Your task to perform on an android device: see tabs open on other devices in the chrome app Image 0: 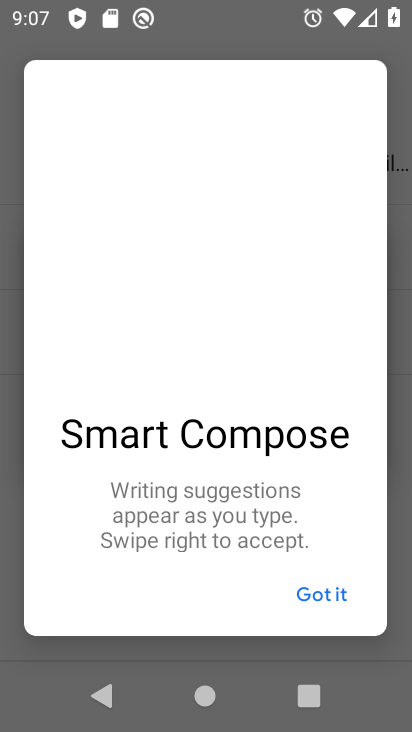
Step 0: press back button
Your task to perform on an android device: see tabs open on other devices in the chrome app Image 1: 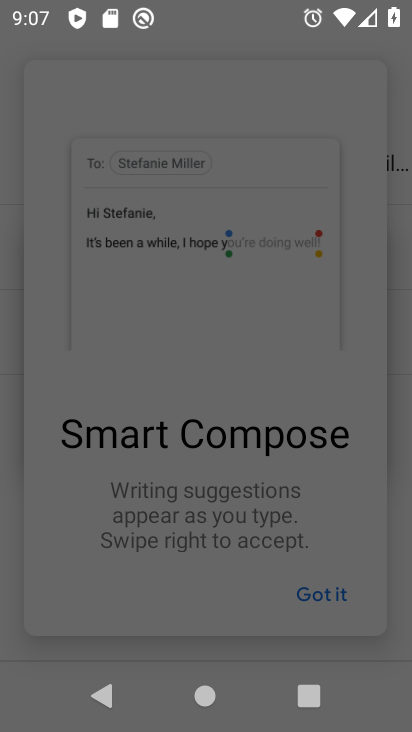
Step 1: press home button
Your task to perform on an android device: see tabs open on other devices in the chrome app Image 2: 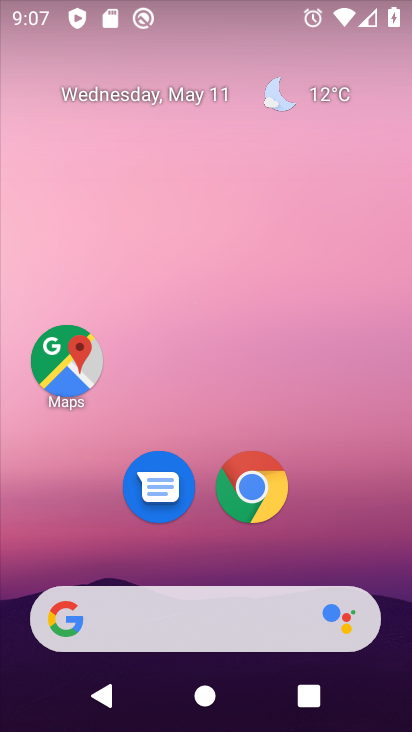
Step 2: click (250, 497)
Your task to perform on an android device: see tabs open on other devices in the chrome app Image 3: 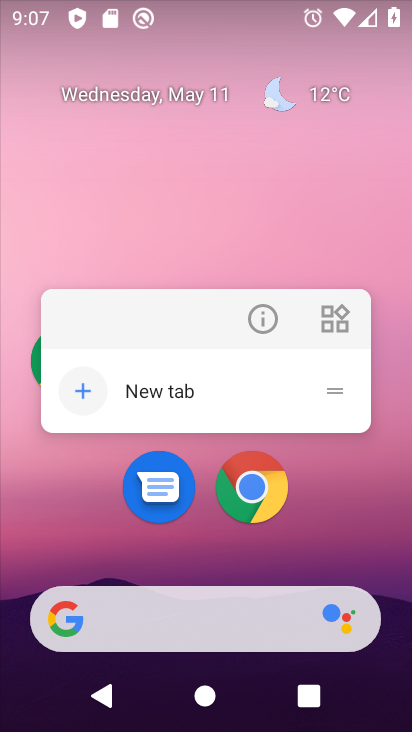
Step 3: click (253, 488)
Your task to perform on an android device: see tabs open on other devices in the chrome app Image 4: 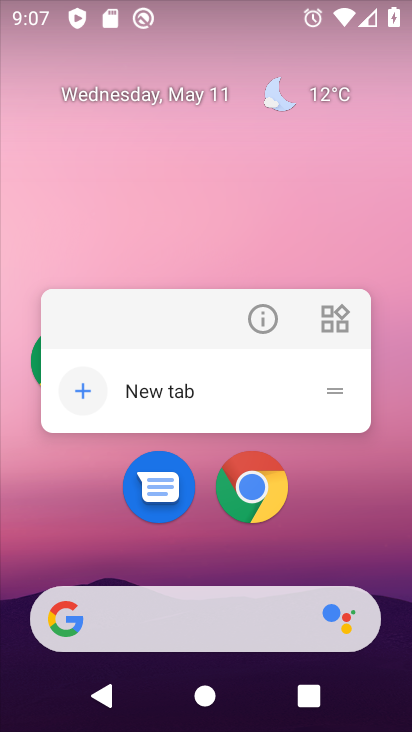
Step 4: click (251, 479)
Your task to perform on an android device: see tabs open on other devices in the chrome app Image 5: 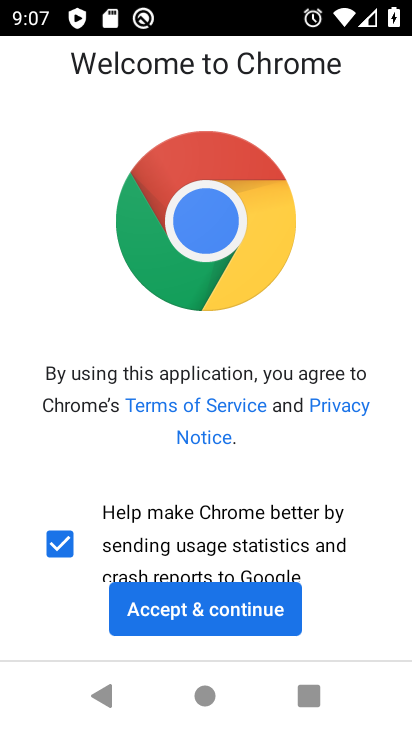
Step 5: click (262, 619)
Your task to perform on an android device: see tabs open on other devices in the chrome app Image 6: 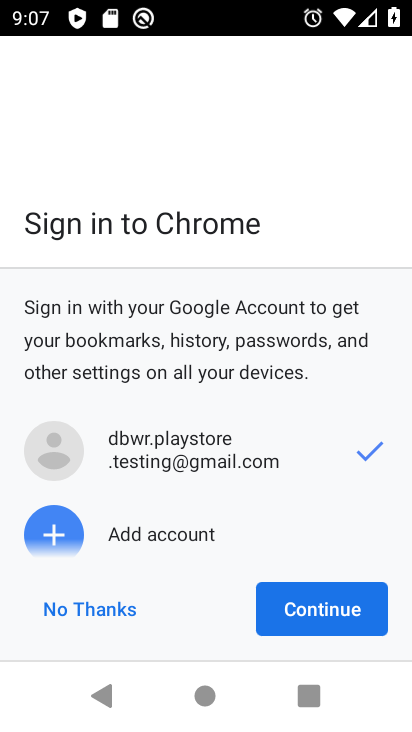
Step 6: click (312, 607)
Your task to perform on an android device: see tabs open on other devices in the chrome app Image 7: 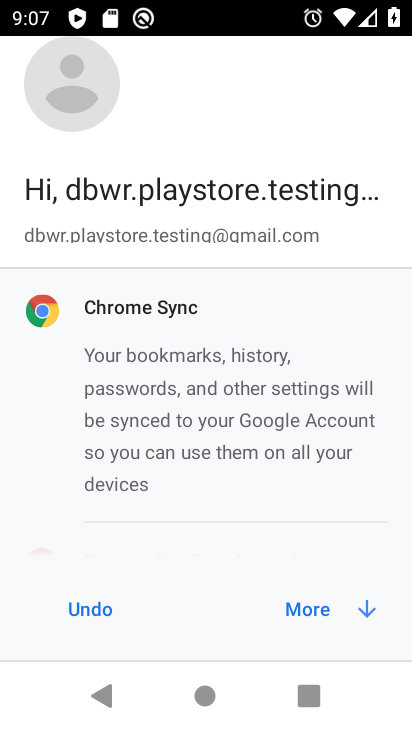
Step 7: click (310, 619)
Your task to perform on an android device: see tabs open on other devices in the chrome app Image 8: 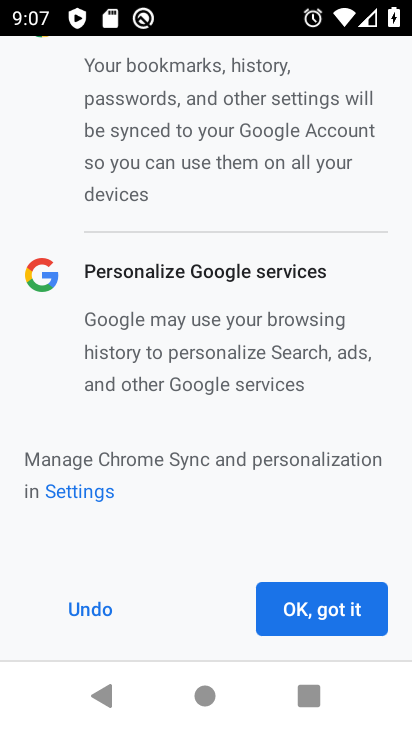
Step 8: click (341, 597)
Your task to perform on an android device: see tabs open on other devices in the chrome app Image 9: 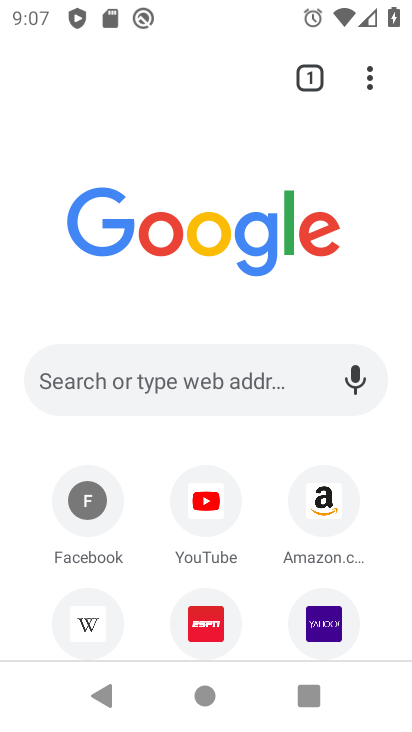
Step 9: task complete